Your task to perform on an android device: change your default location settings in chrome Image 0: 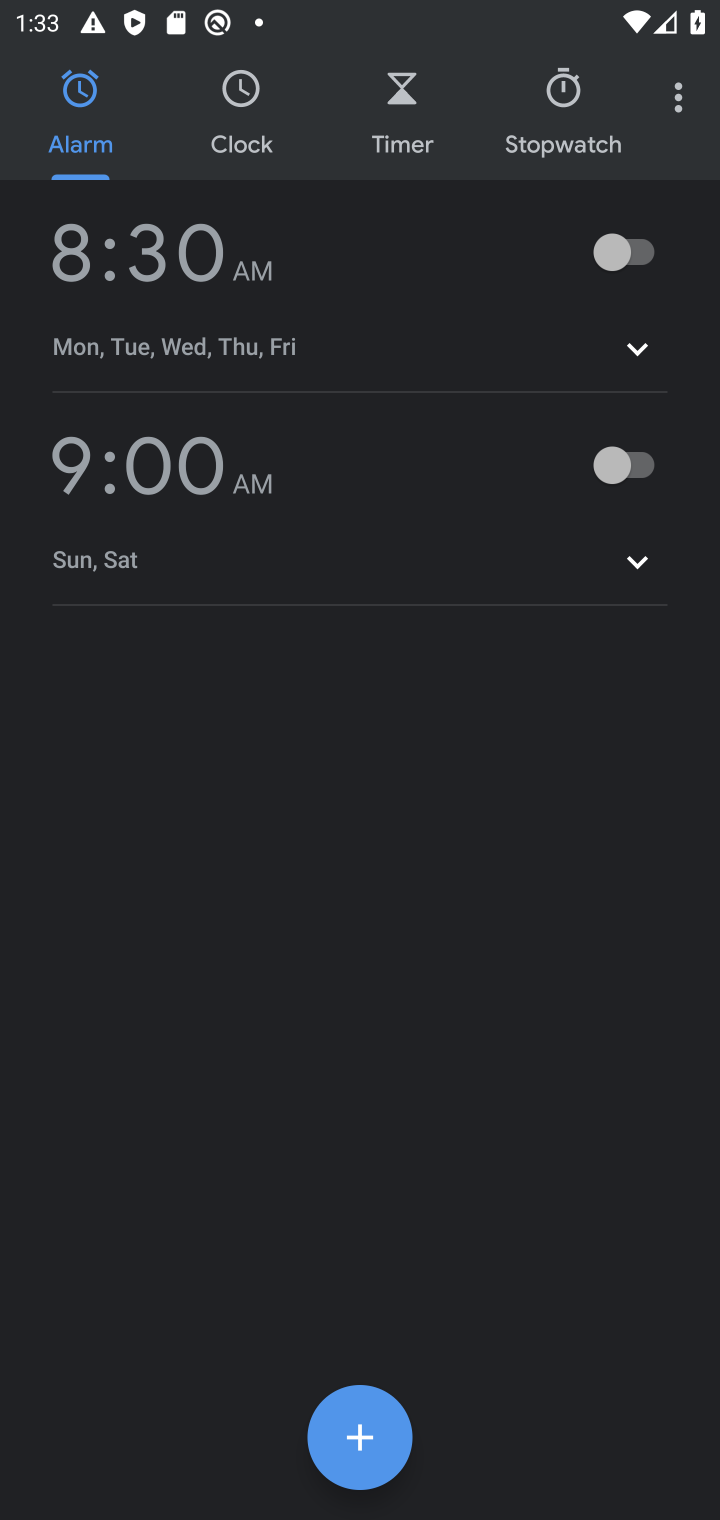
Step 0: press home button
Your task to perform on an android device: change your default location settings in chrome Image 1: 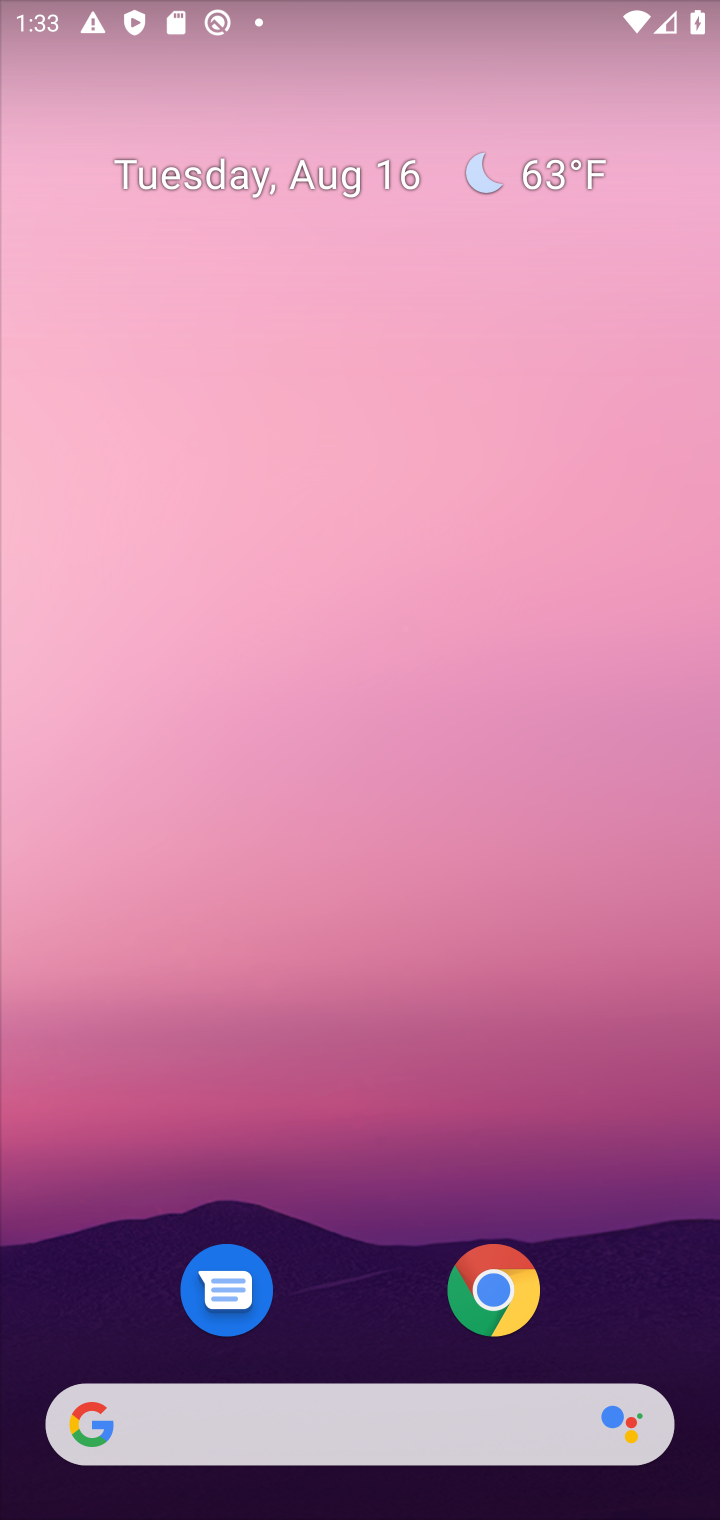
Step 1: drag from (314, 475) to (469, 145)
Your task to perform on an android device: change your default location settings in chrome Image 2: 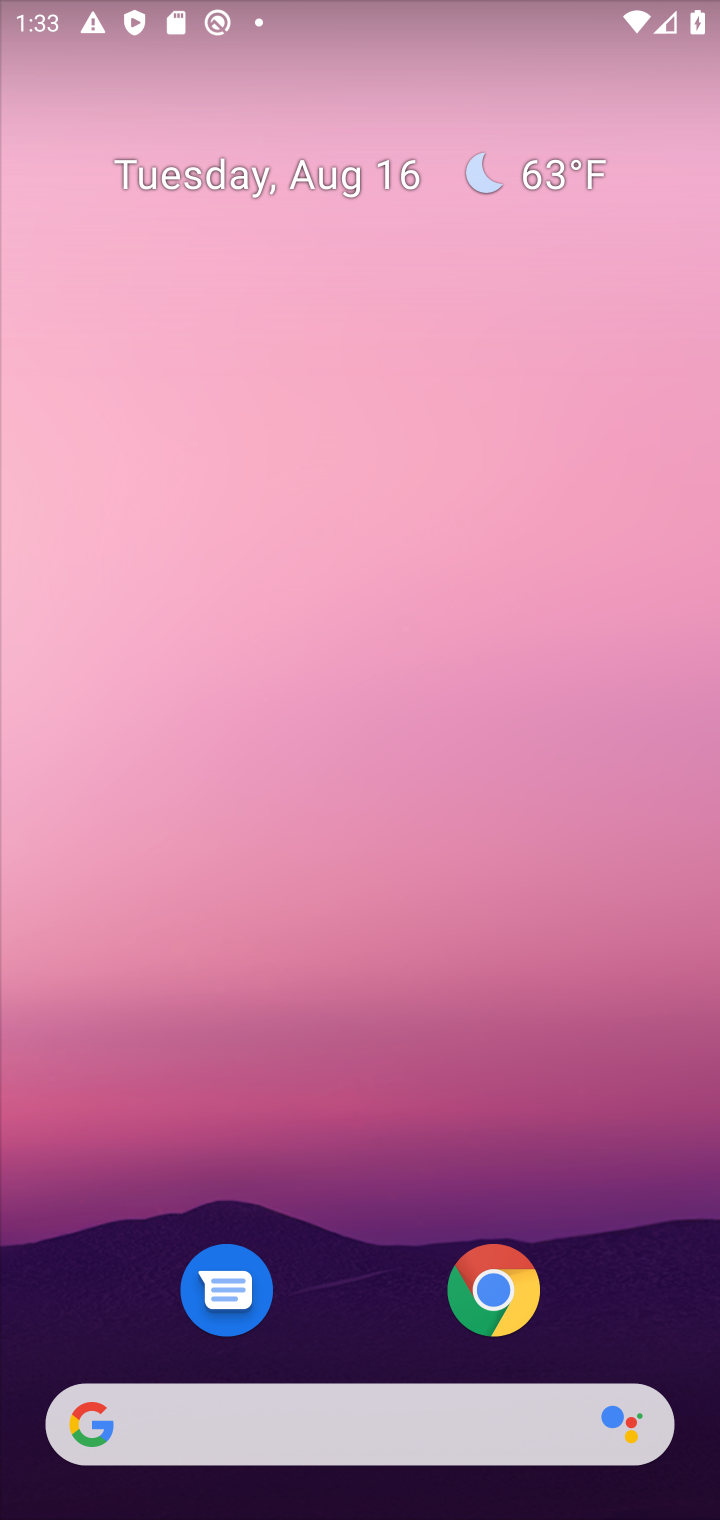
Step 2: drag from (56, 1134) to (448, 276)
Your task to perform on an android device: change your default location settings in chrome Image 3: 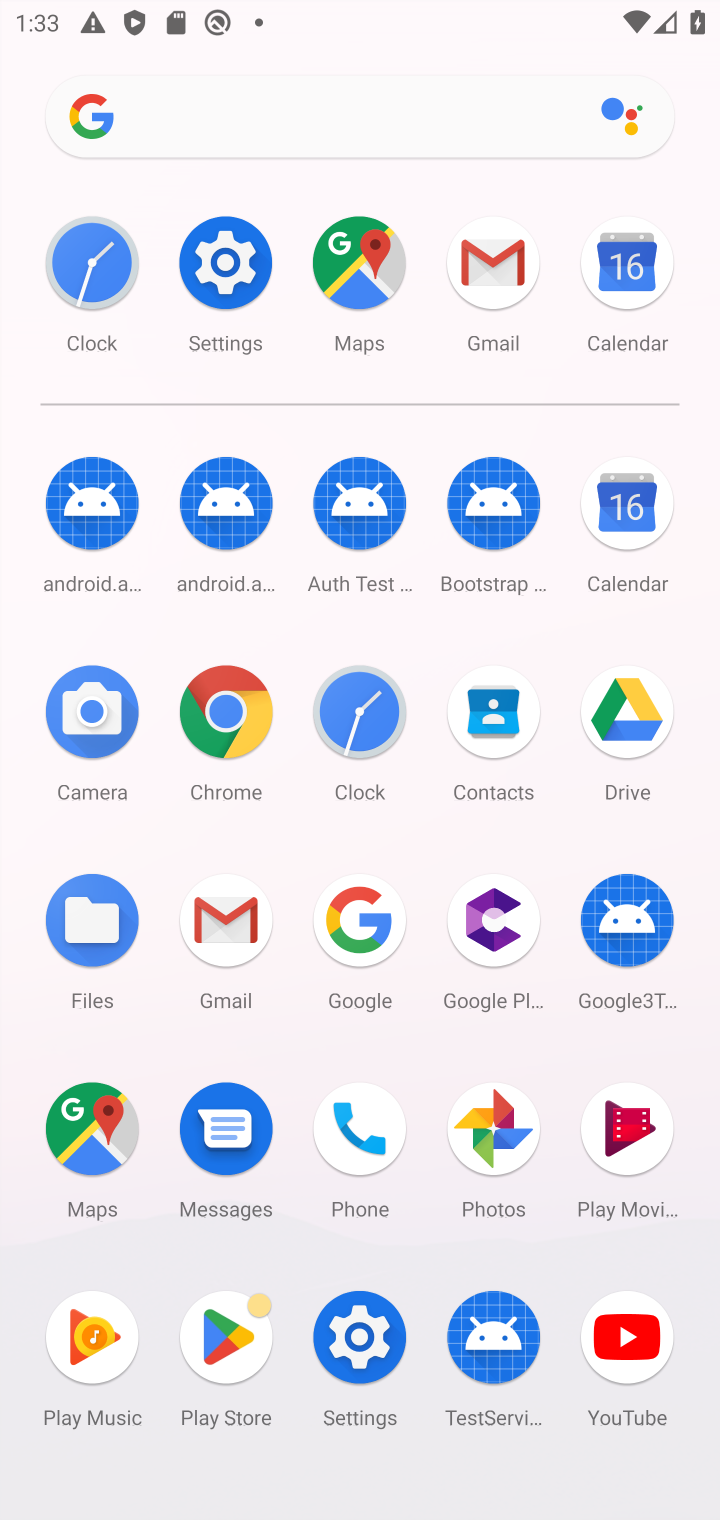
Step 3: click (203, 251)
Your task to perform on an android device: change your default location settings in chrome Image 4: 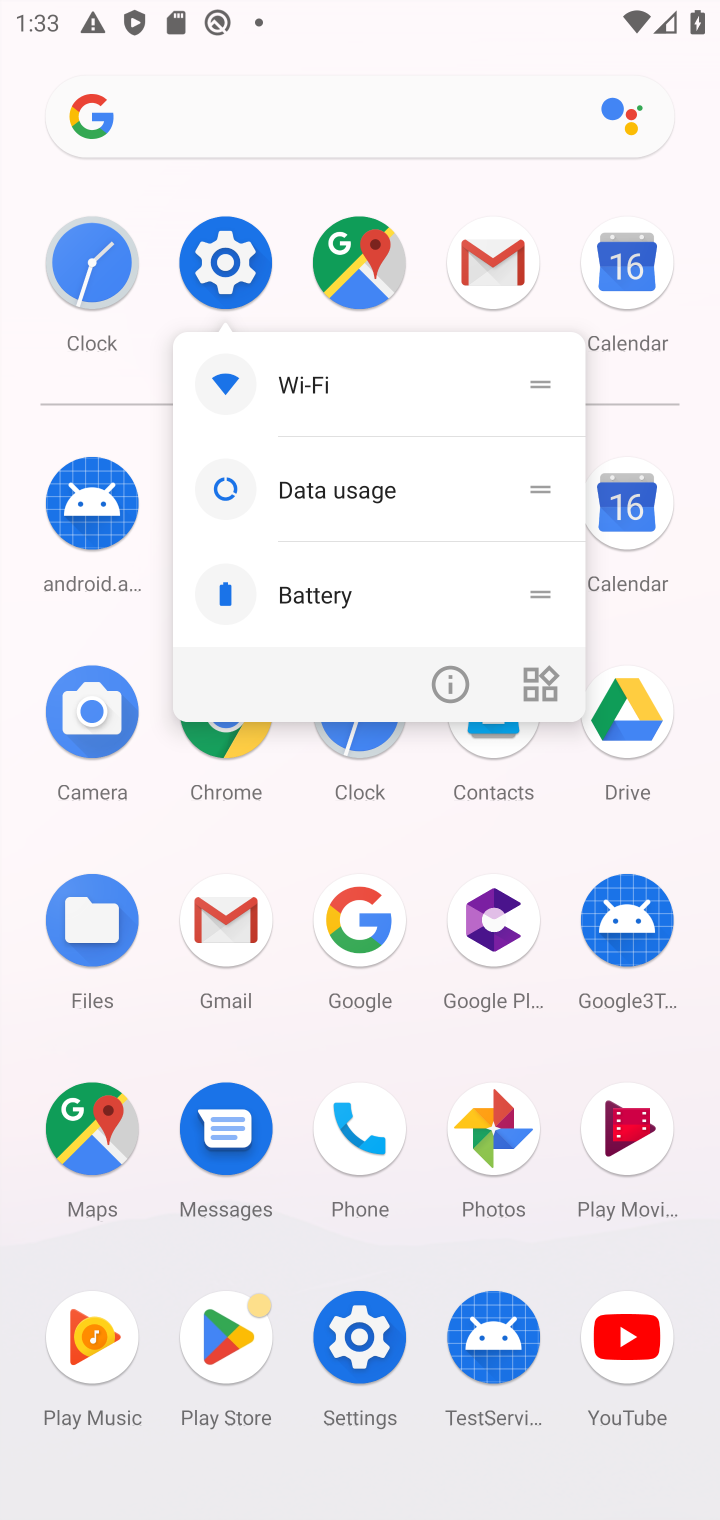
Step 4: click (222, 266)
Your task to perform on an android device: change your default location settings in chrome Image 5: 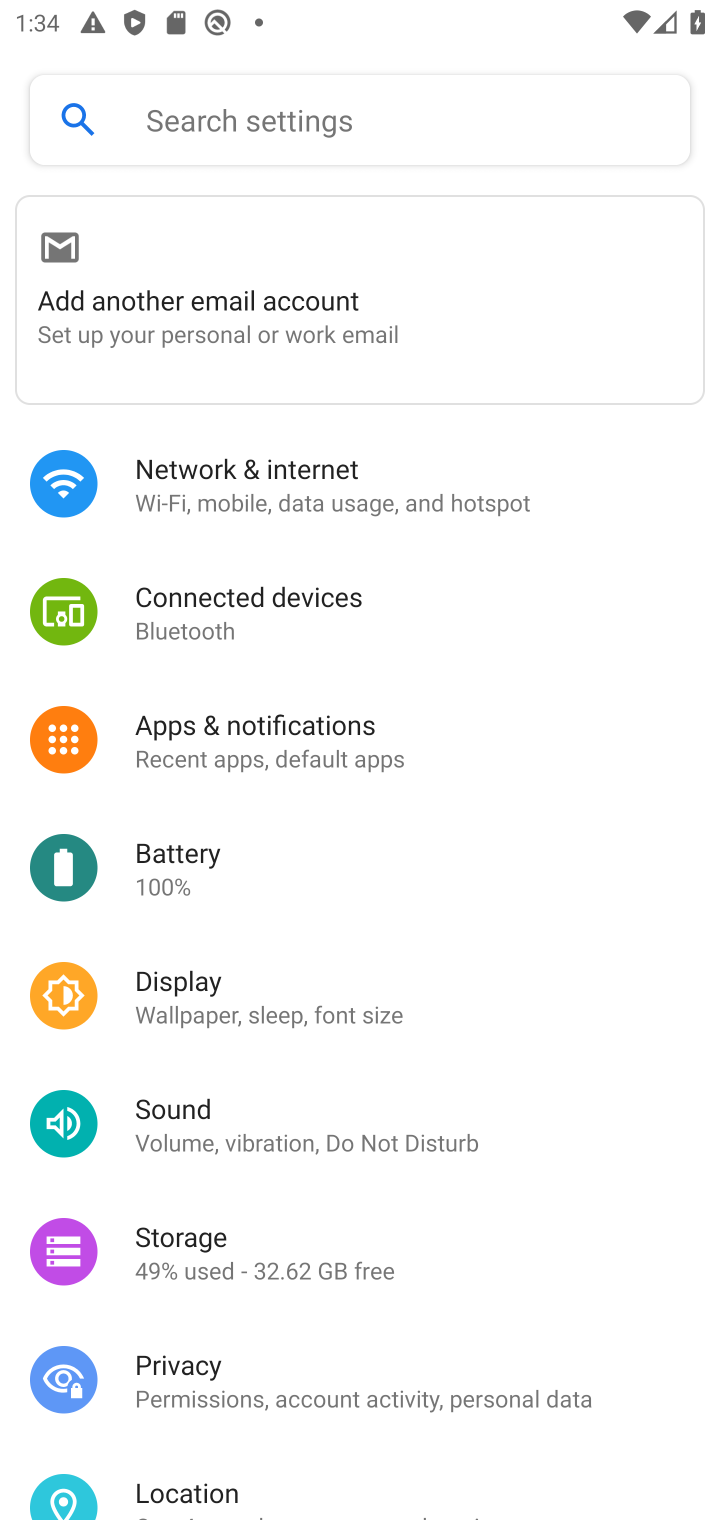
Step 5: press home button
Your task to perform on an android device: change your default location settings in chrome Image 6: 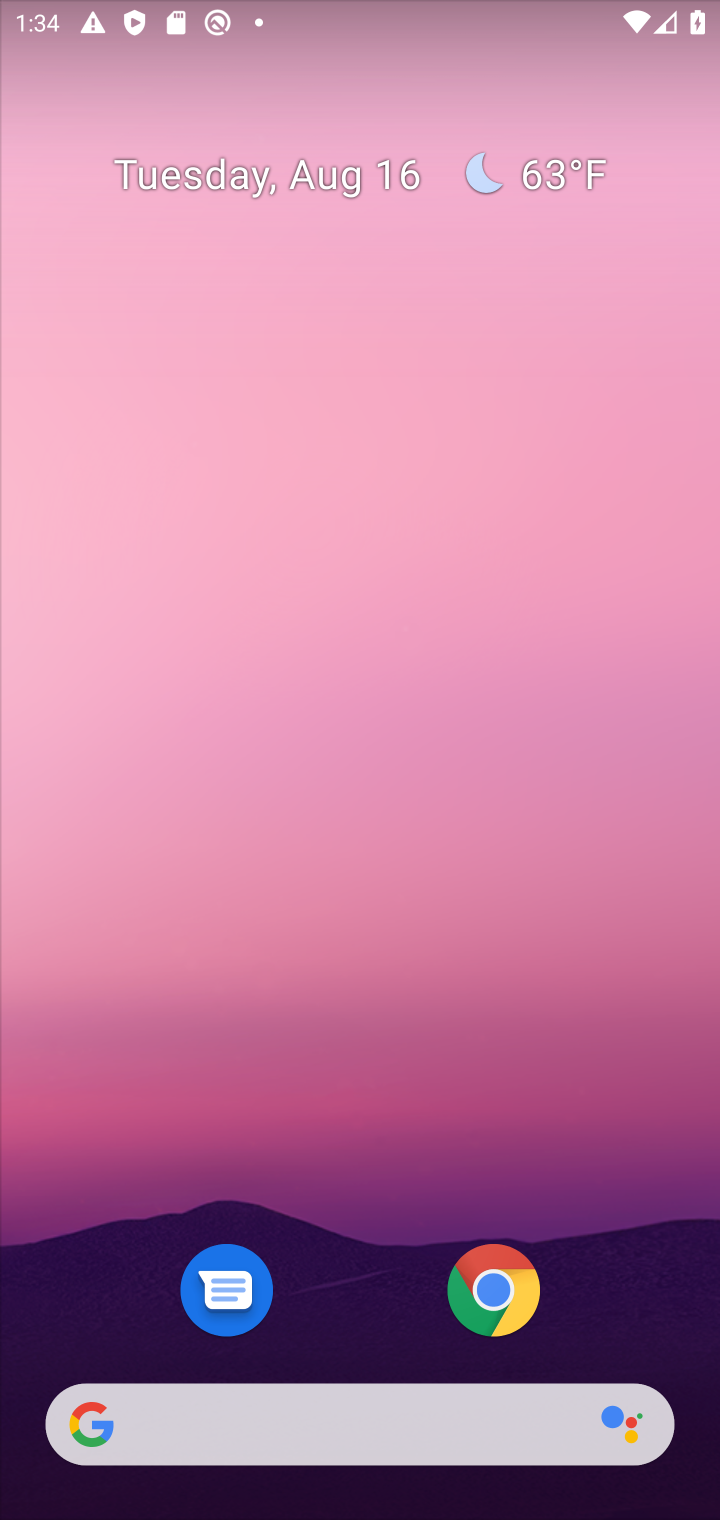
Step 6: drag from (152, 764) to (348, 133)
Your task to perform on an android device: change your default location settings in chrome Image 7: 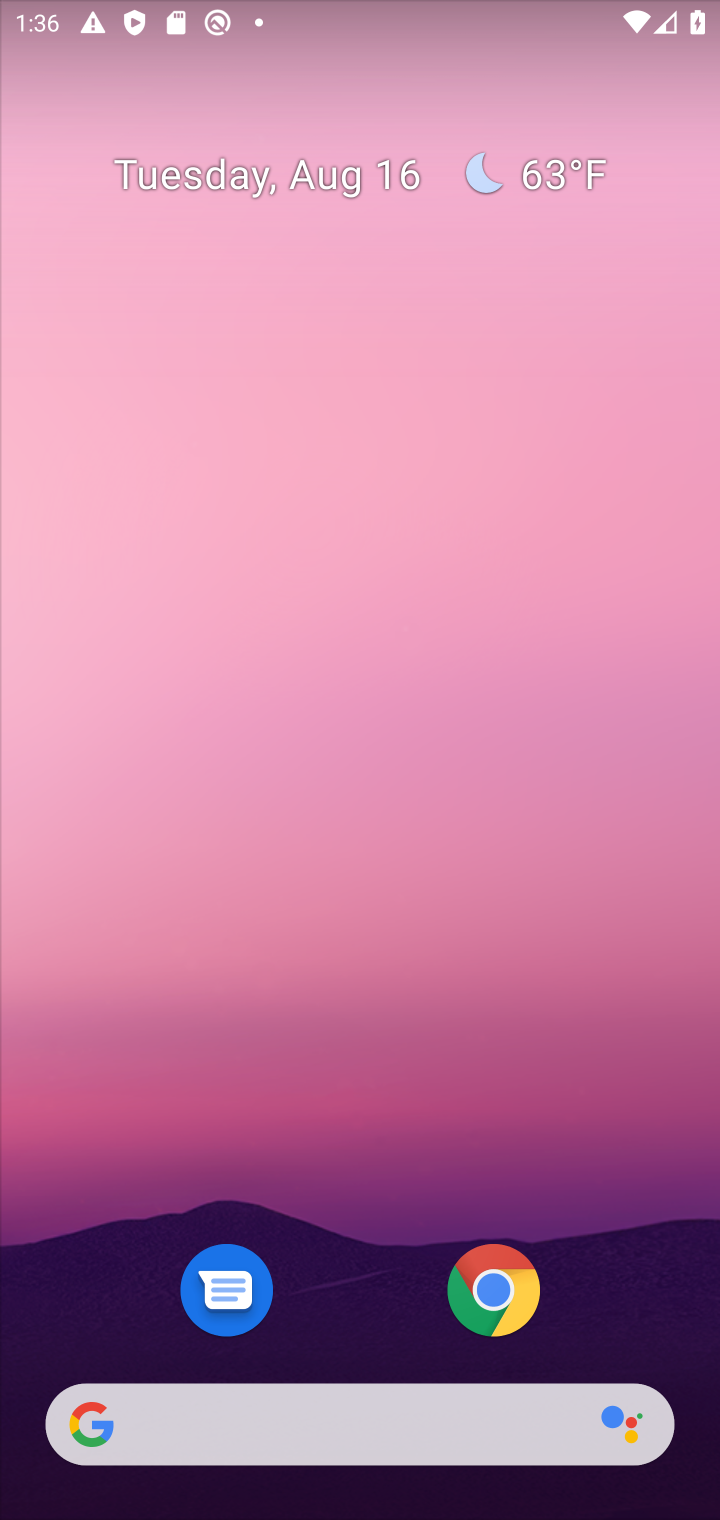
Step 7: click (487, 1288)
Your task to perform on an android device: change your default location settings in chrome Image 8: 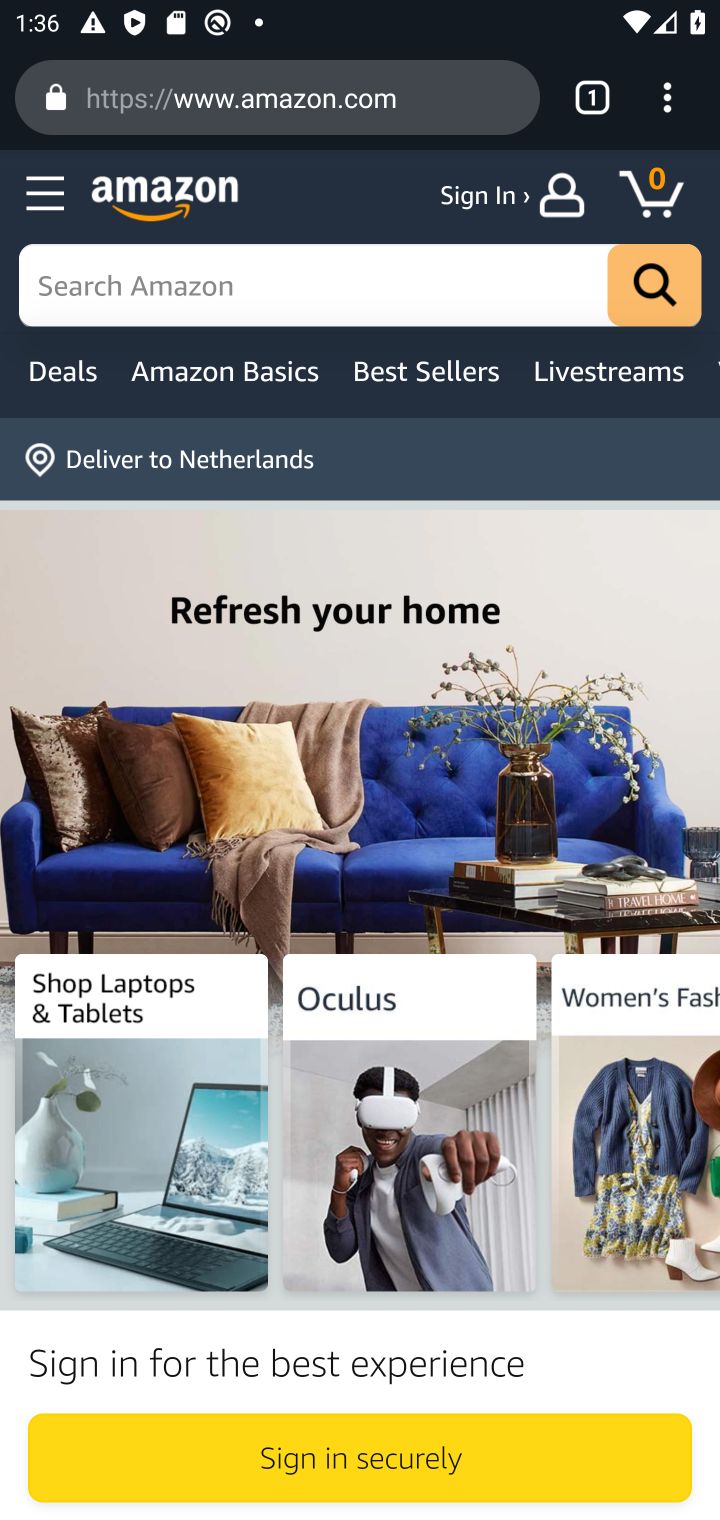
Step 8: task complete